Your task to perform on an android device: see tabs open on other devices in the chrome app Image 0: 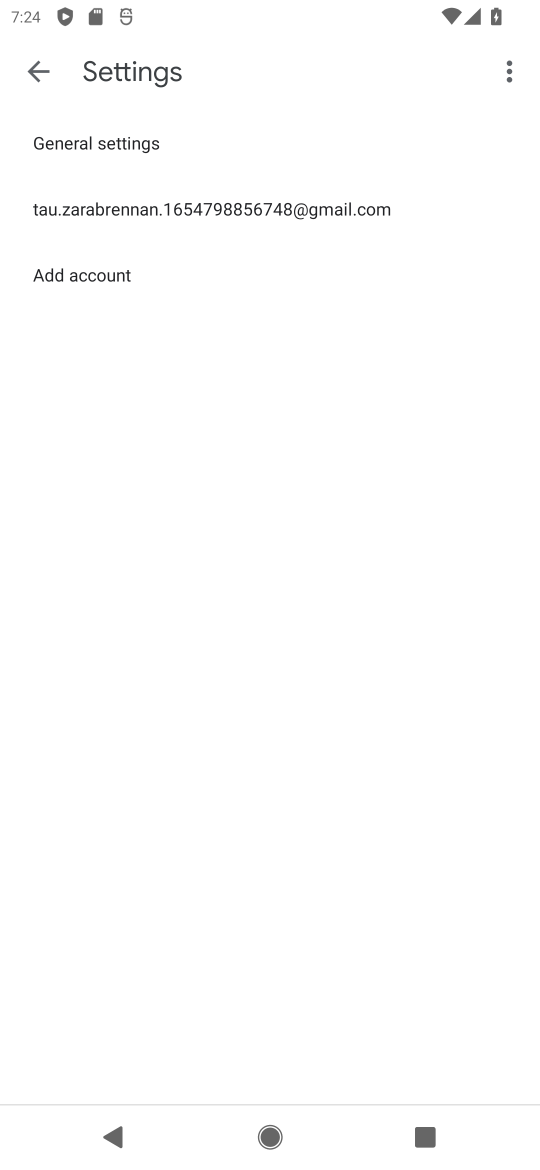
Step 0: press home button
Your task to perform on an android device: see tabs open on other devices in the chrome app Image 1: 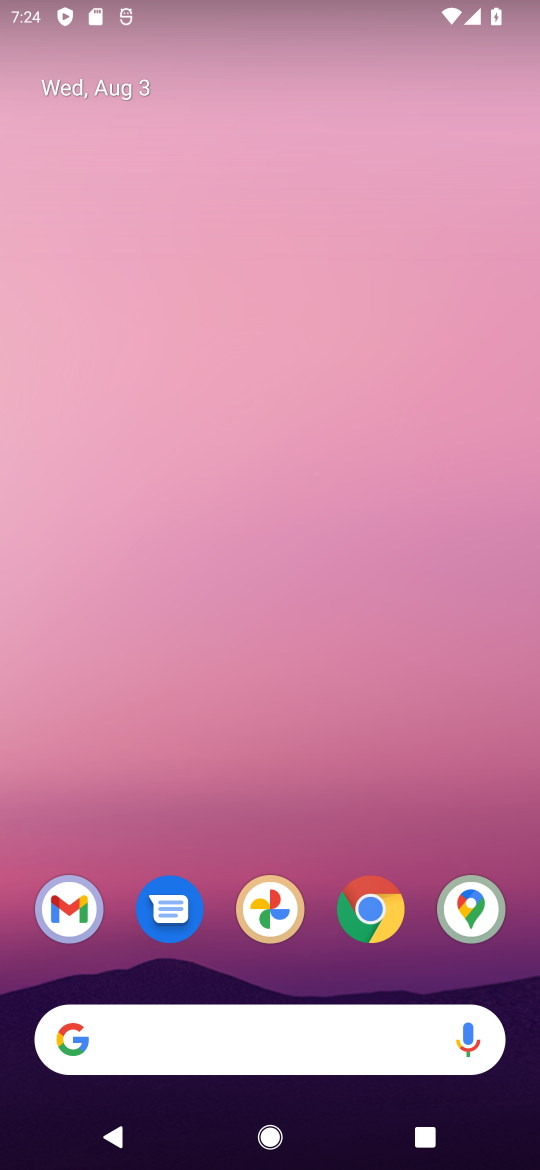
Step 1: drag from (420, 775) to (424, 203)
Your task to perform on an android device: see tabs open on other devices in the chrome app Image 2: 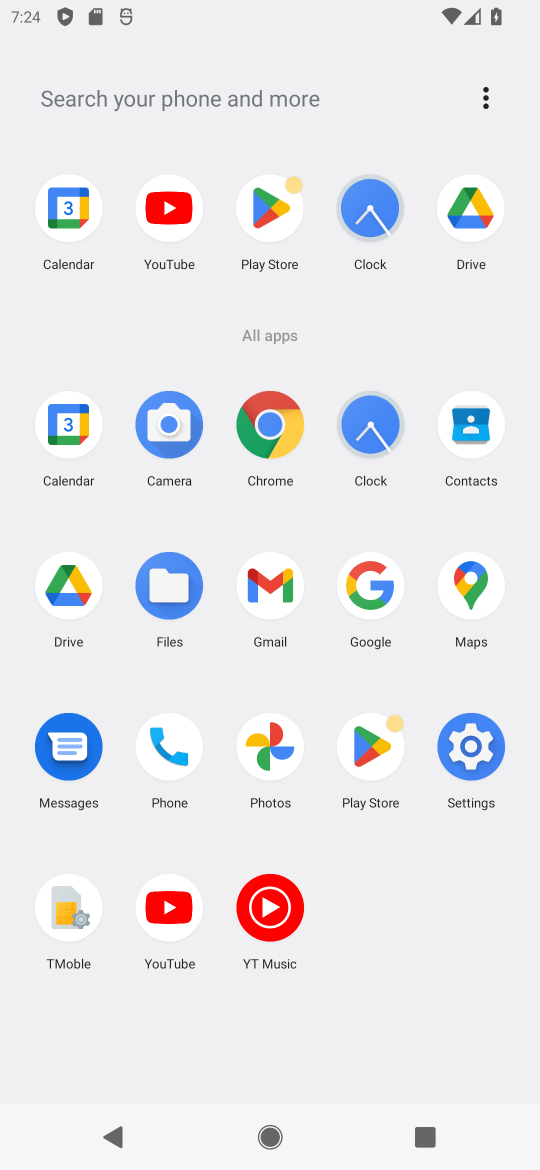
Step 2: click (259, 427)
Your task to perform on an android device: see tabs open on other devices in the chrome app Image 3: 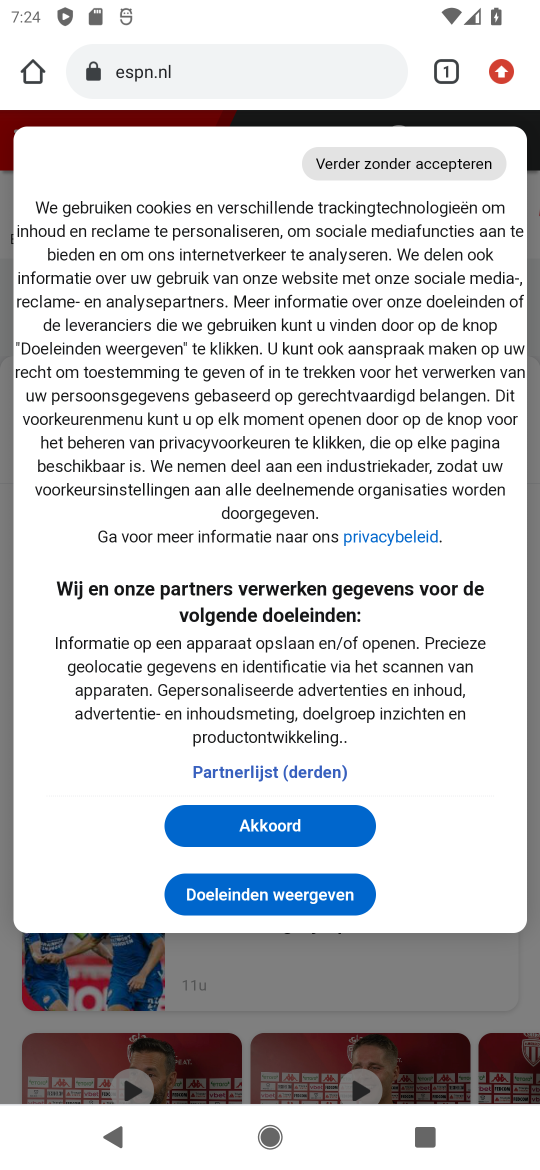
Step 3: click (448, 72)
Your task to perform on an android device: see tabs open on other devices in the chrome app Image 4: 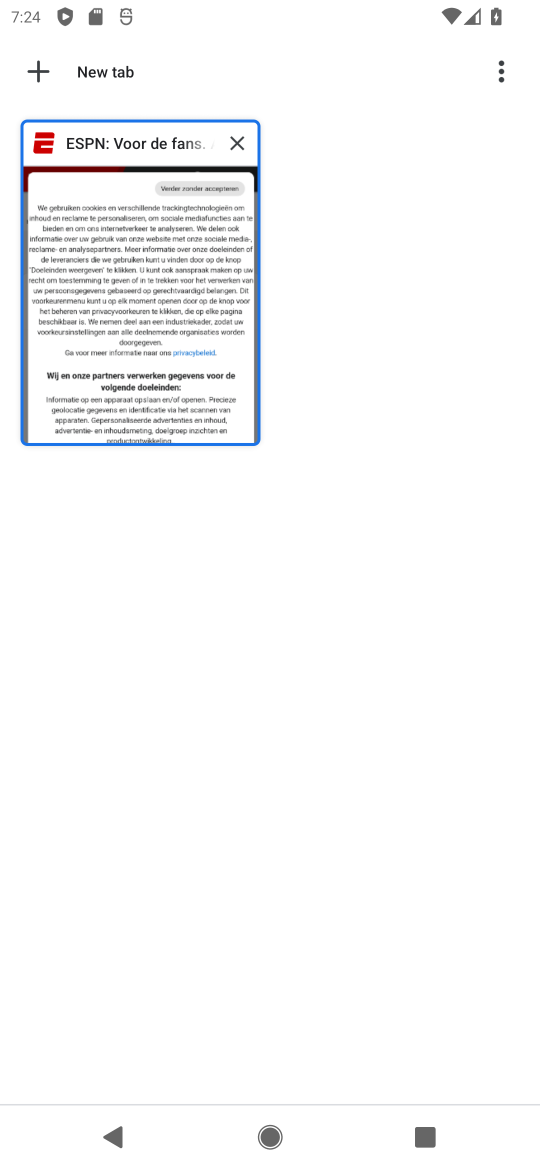
Step 4: task complete